Your task to perform on an android device: allow cookies in the chrome app Image 0: 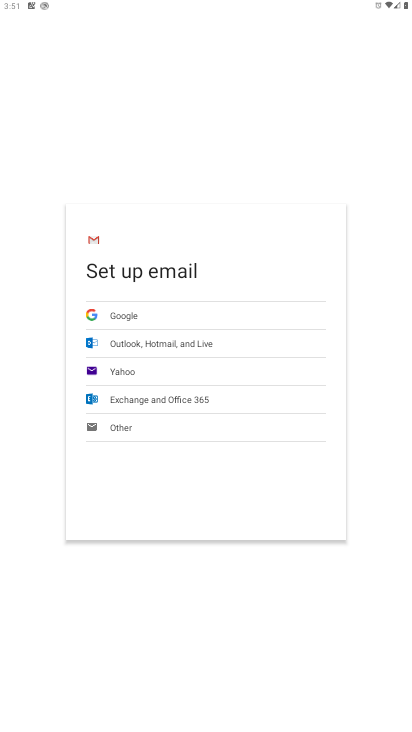
Step 0: press home button
Your task to perform on an android device: allow cookies in the chrome app Image 1: 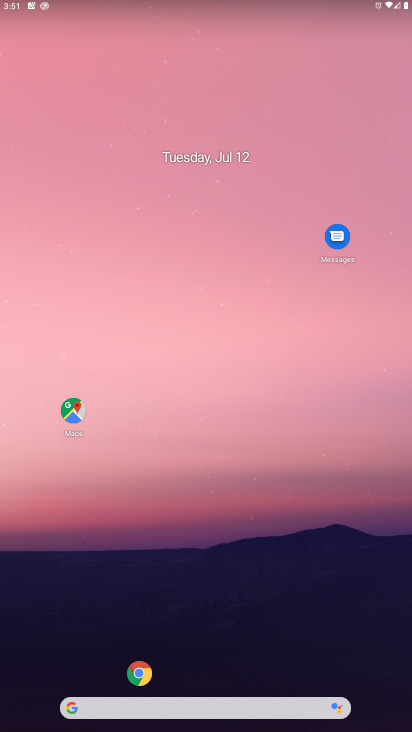
Step 1: click (133, 677)
Your task to perform on an android device: allow cookies in the chrome app Image 2: 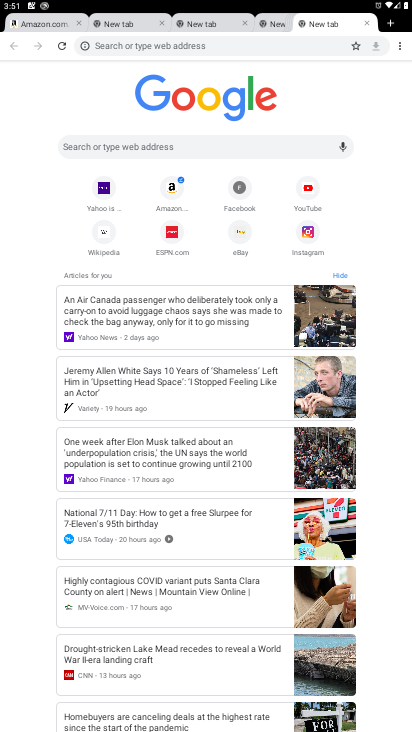
Step 2: click (400, 45)
Your task to perform on an android device: allow cookies in the chrome app Image 3: 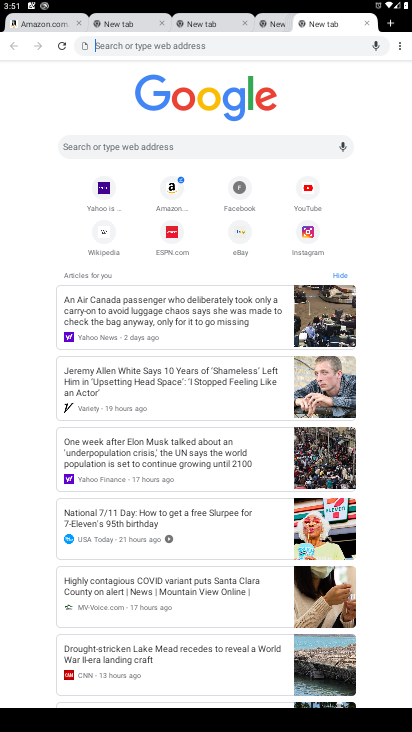
Step 3: click (394, 37)
Your task to perform on an android device: allow cookies in the chrome app Image 4: 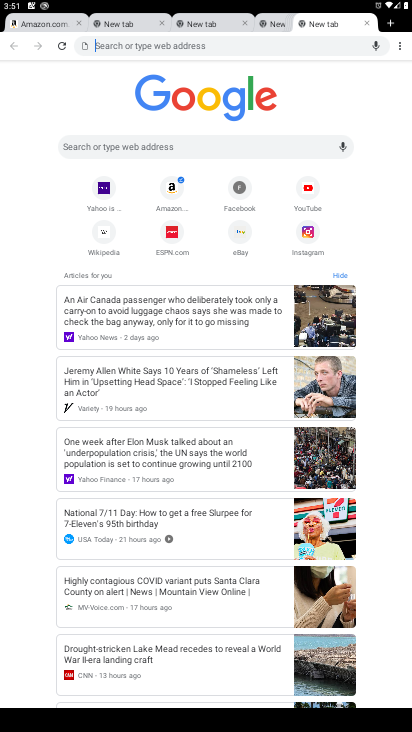
Step 4: task complete